Your task to perform on an android device: Go to Android settings Image 0: 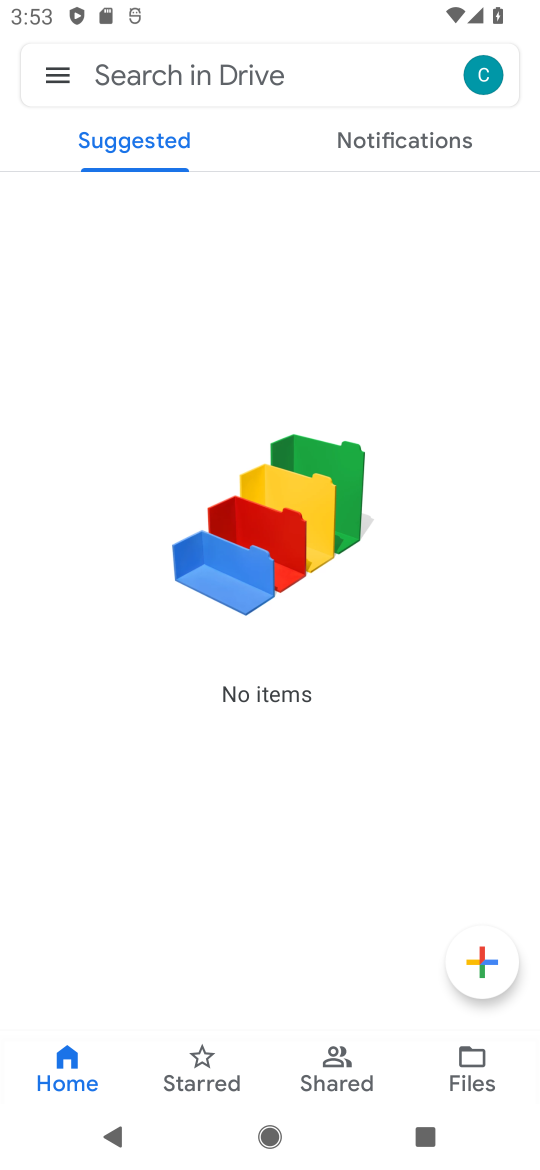
Step 0: press home button
Your task to perform on an android device: Go to Android settings Image 1: 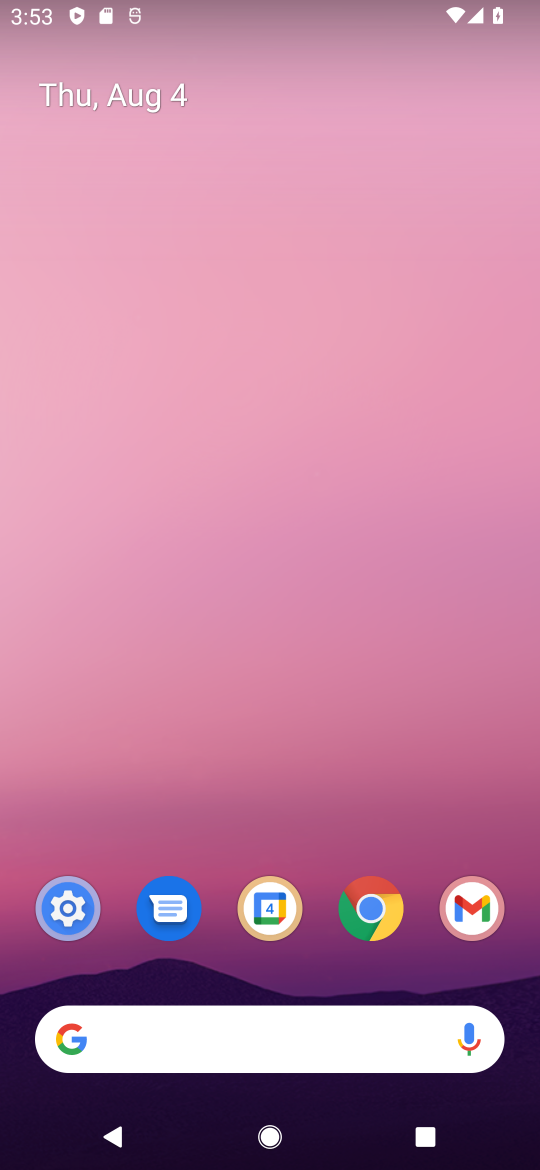
Step 1: click (51, 905)
Your task to perform on an android device: Go to Android settings Image 2: 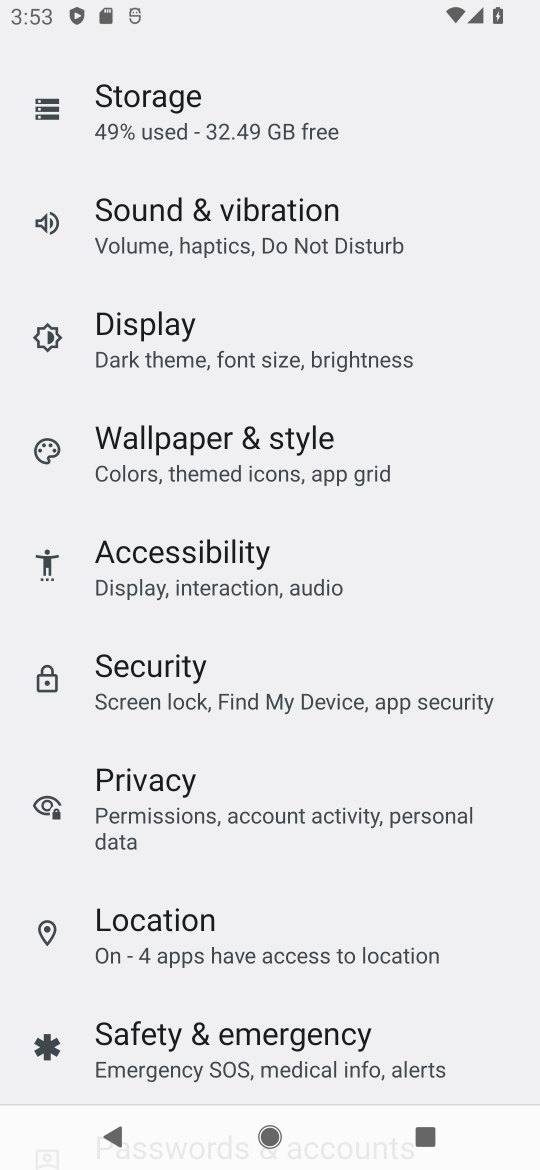
Step 2: drag from (351, 1023) to (307, 587)
Your task to perform on an android device: Go to Android settings Image 3: 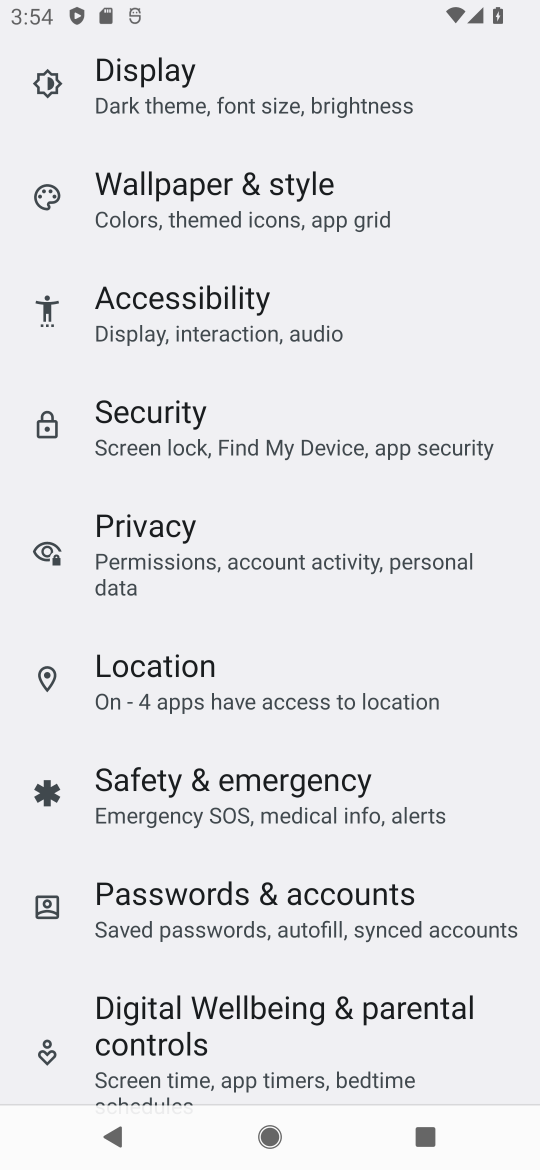
Step 3: drag from (304, 906) to (169, 18)
Your task to perform on an android device: Go to Android settings Image 4: 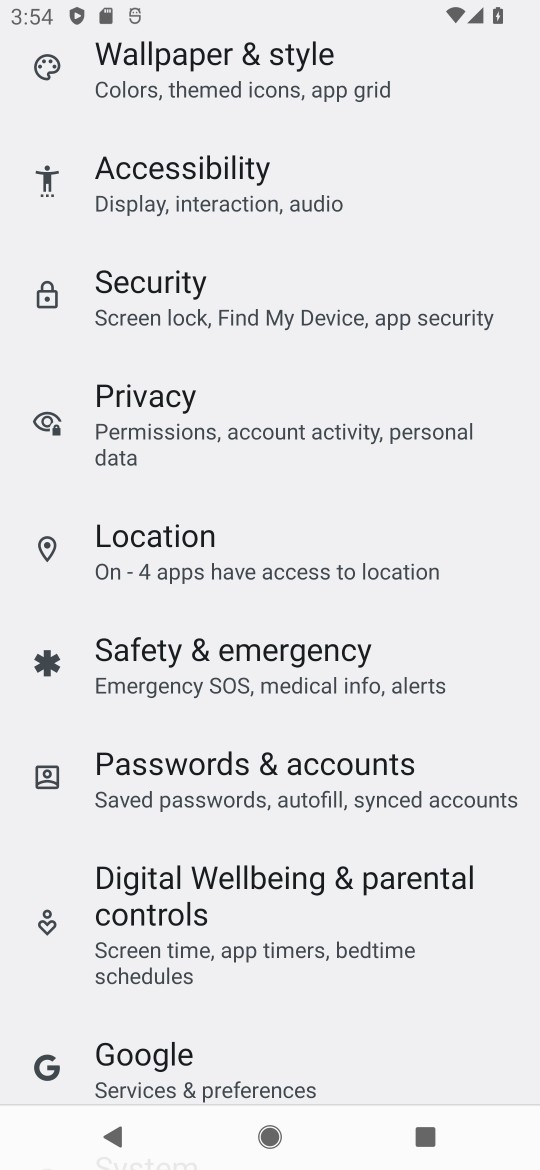
Step 4: drag from (357, 1060) to (235, 394)
Your task to perform on an android device: Go to Android settings Image 5: 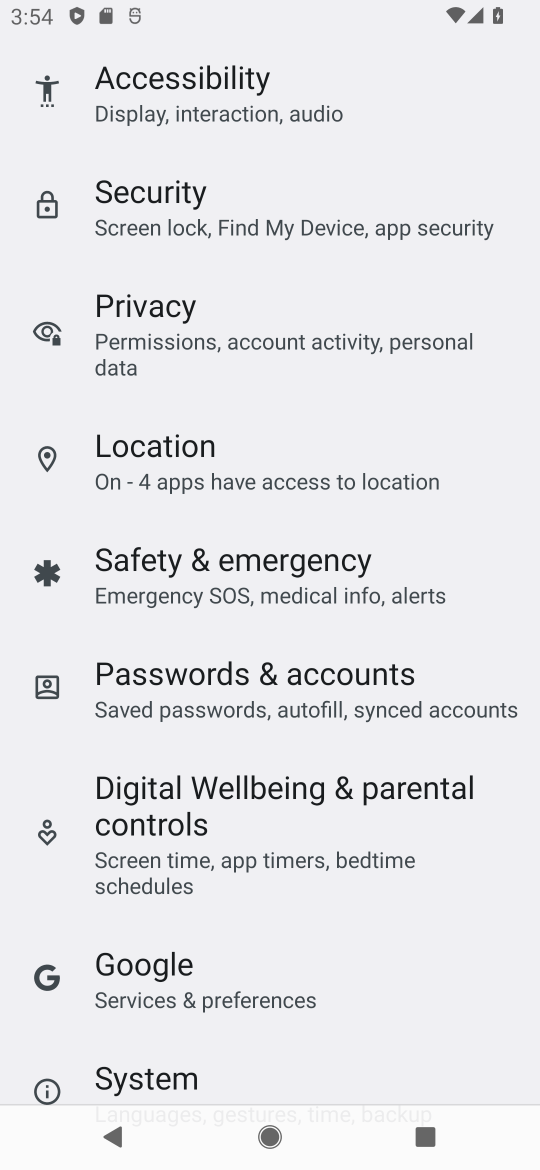
Step 5: click (170, 1071)
Your task to perform on an android device: Go to Android settings Image 6: 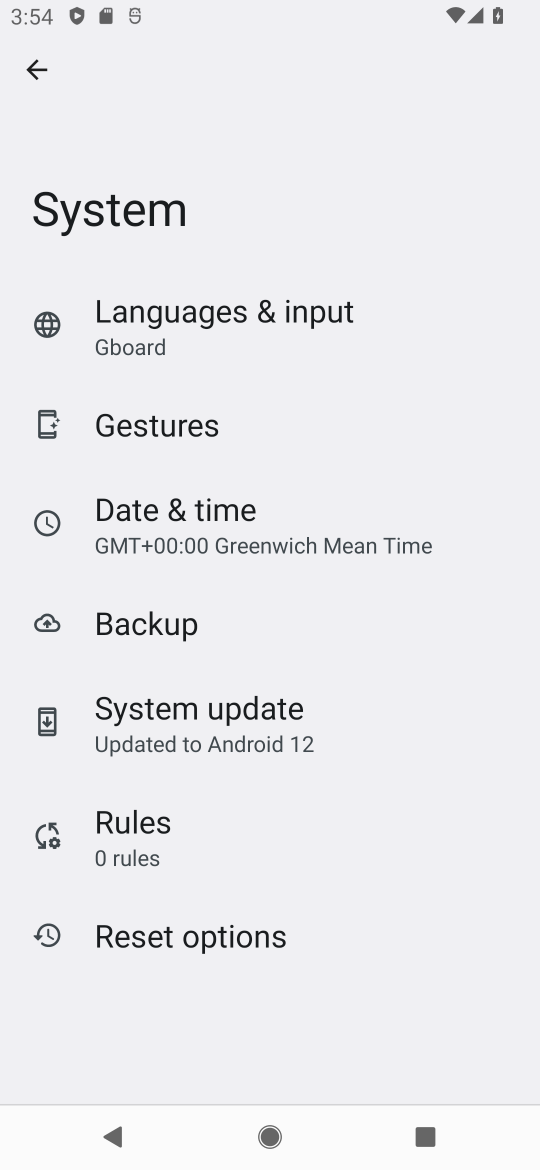
Step 6: task complete